Your task to perform on an android device: check storage Image 0: 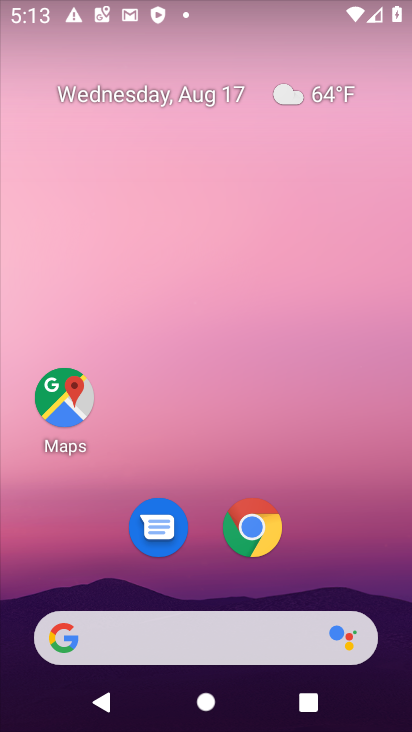
Step 0: drag from (172, 597) to (172, 284)
Your task to perform on an android device: check storage Image 1: 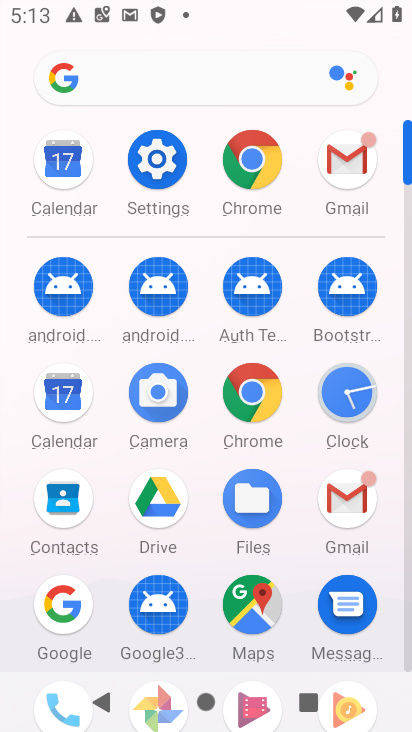
Step 1: click (153, 169)
Your task to perform on an android device: check storage Image 2: 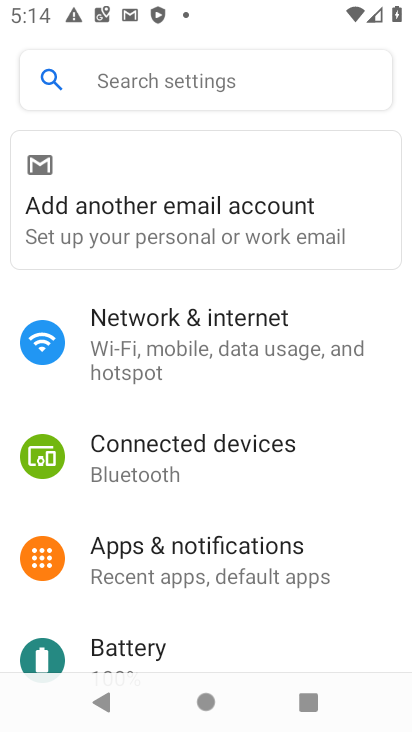
Step 2: drag from (153, 632) to (184, 221)
Your task to perform on an android device: check storage Image 3: 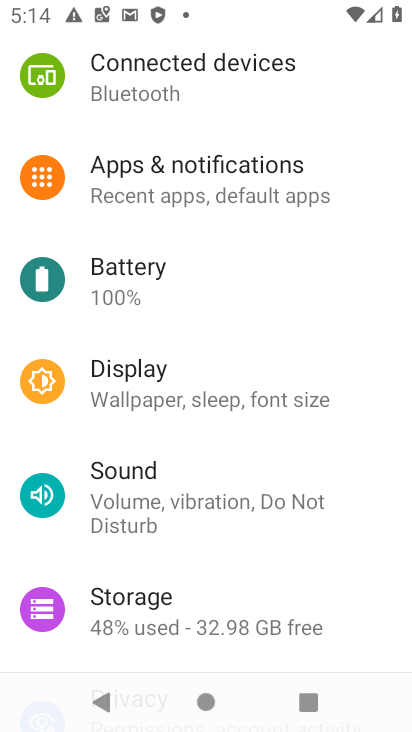
Step 3: drag from (123, 611) to (125, 484)
Your task to perform on an android device: check storage Image 4: 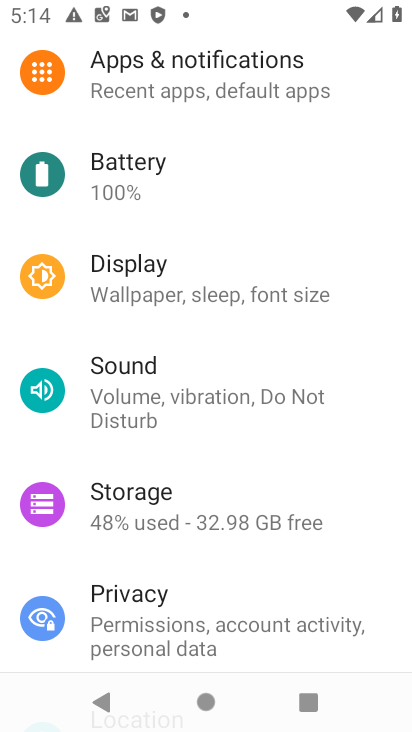
Step 4: click (134, 505)
Your task to perform on an android device: check storage Image 5: 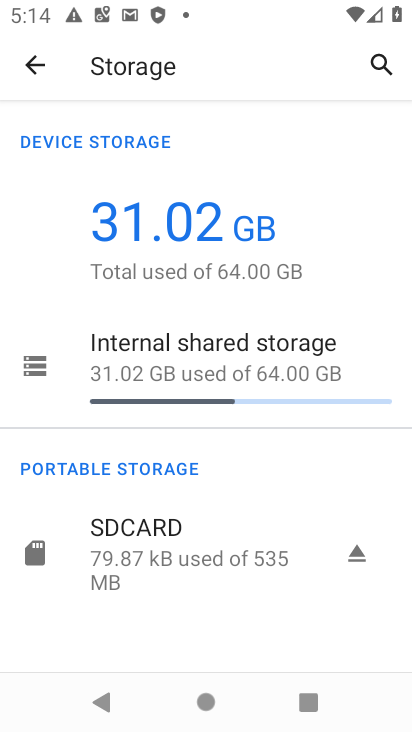
Step 5: task complete